Your task to perform on an android device: Go to display settings Image 0: 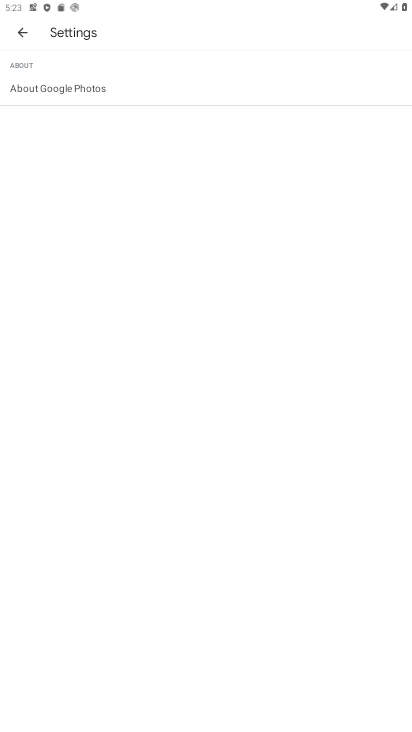
Step 0: press home button
Your task to perform on an android device: Go to display settings Image 1: 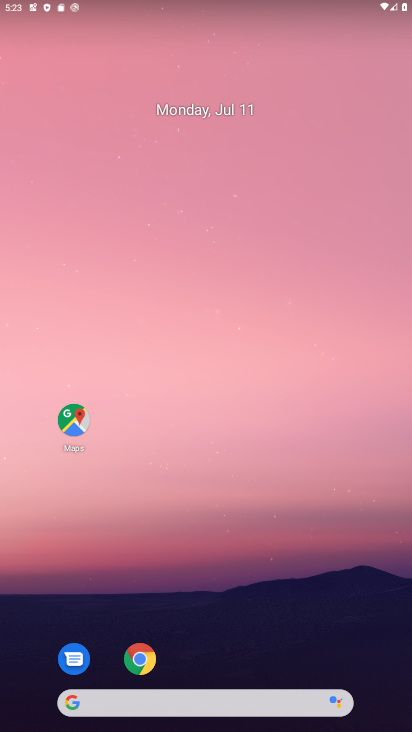
Step 1: drag from (386, 333) to (359, 77)
Your task to perform on an android device: Go to display settings Image 2: 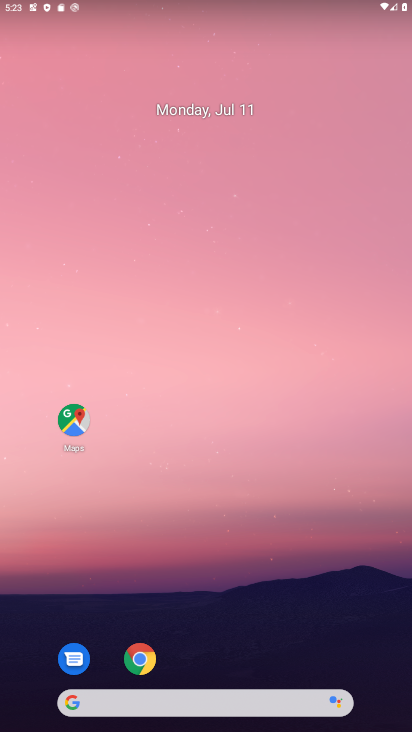
Step 2: drag from (355, 604) to (369, 133)
Your task to perform on an android device: Go to display settings Image 3: 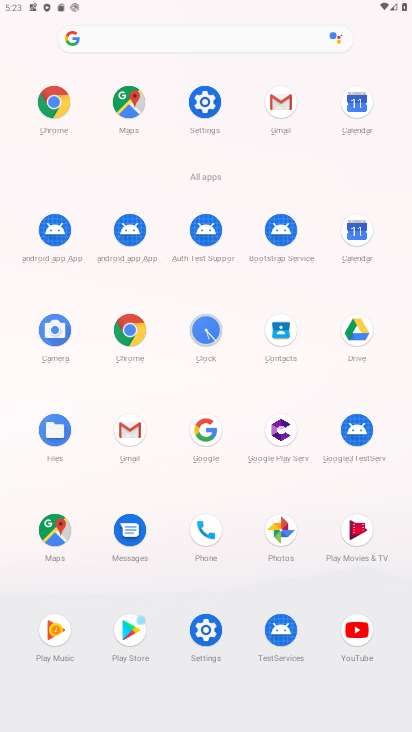
Step 3: click (210, 630)
Your task to perform on an android device: Go to display settings Image 4: 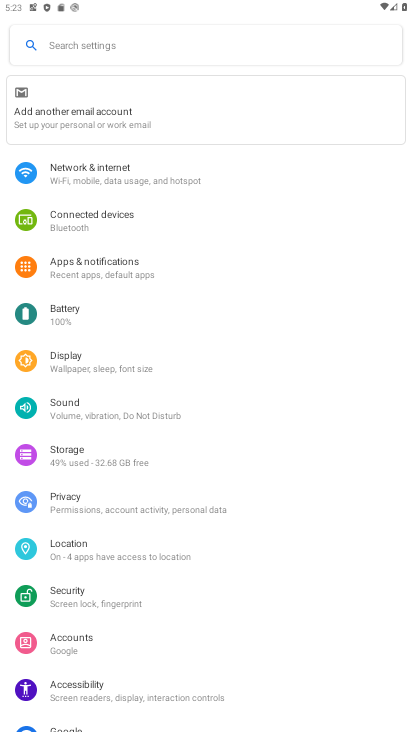
Step 4: click (56, 364)
Your task to perform on an android device: Go to display settings Image 5: 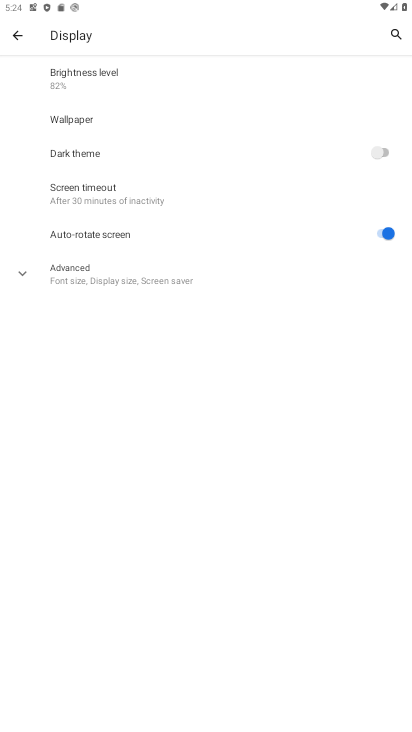
Step 5: task complete